Your task to perform on an android device: open sync settings in chrome Image 0: 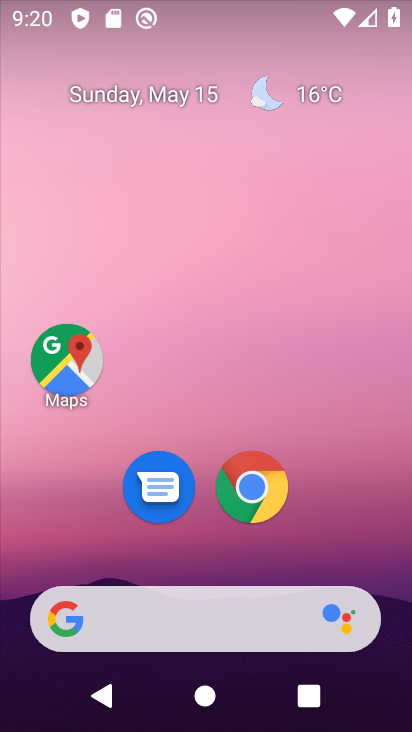
Step 0: drag from (381, 558) to (371, 206)
Your task to perform on an android device: open sync settings in chrome Image 1: 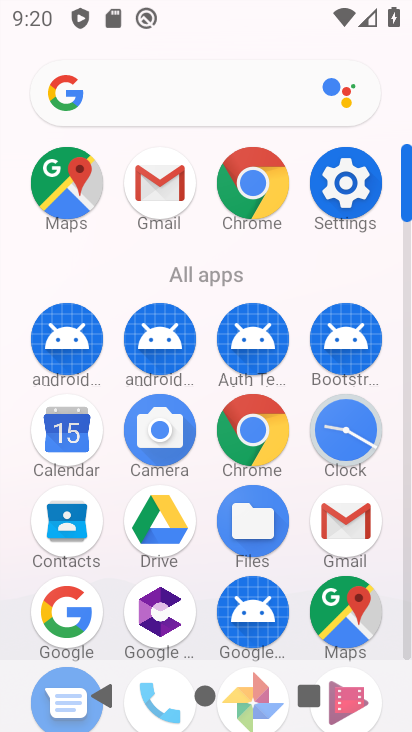
Step 1: click (241, 416)
Your task to perform on an android device: open sync settings in chrome Image 2: 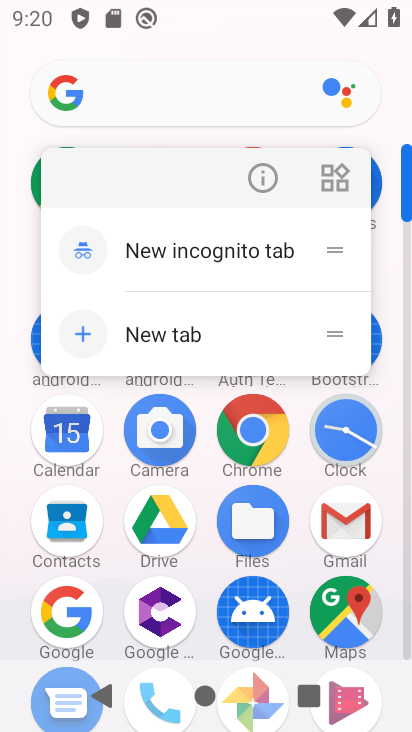
Step 2: click (241, 421)
Your task to perform on an android device: open sync settings in chrome Image 3: 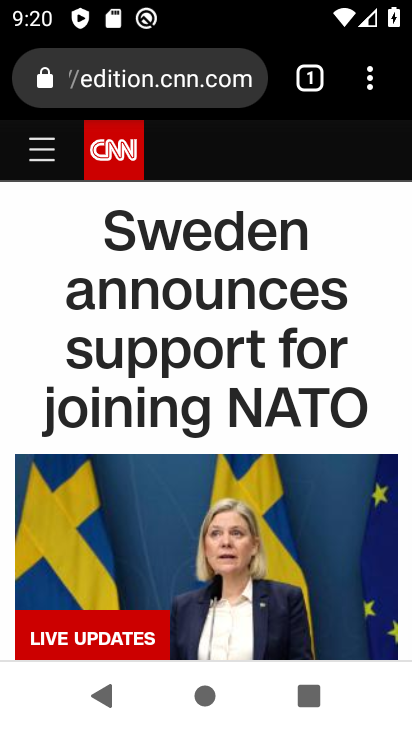
Step 3: drag from (363, 90) to (189, 554)
Your task to perform on an android device: open sync settings in chrome Image 4: 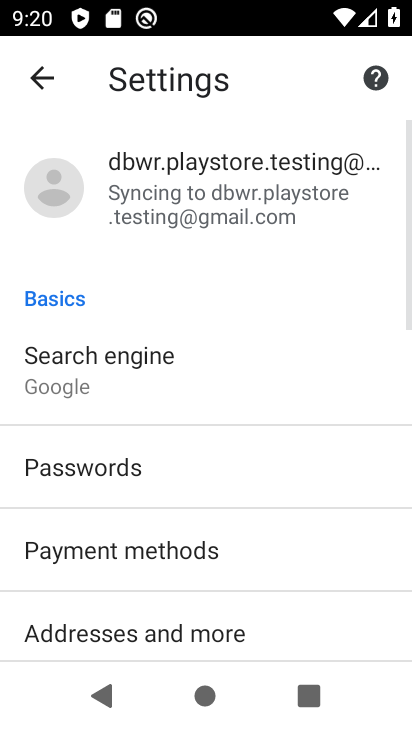
Step 4: drag from (297, 638) to (309, 348)
Your task to perform on an android device: open sync settings in chrome Image 5: 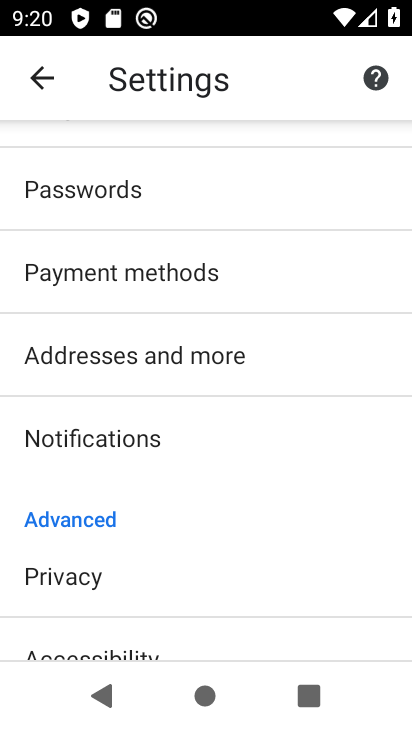
Step 5: drag from (278, 550) to (283, 249)
Your task to perform on an android device: open sync settings in chrome Image 6: 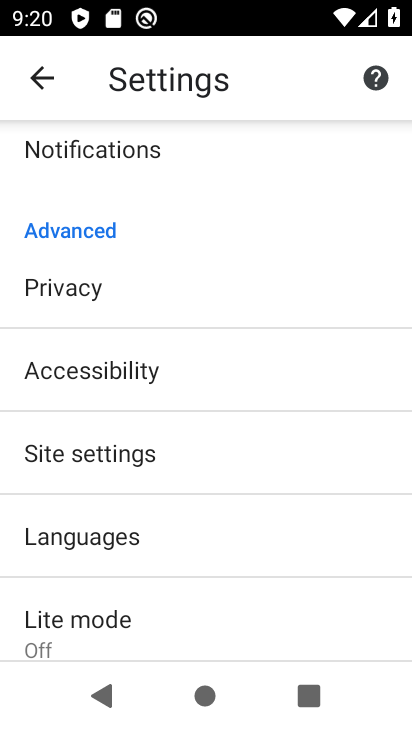
Step 6: click (255, 462)
Your task to perform on an android device: open sync settings in chrome Image 7: 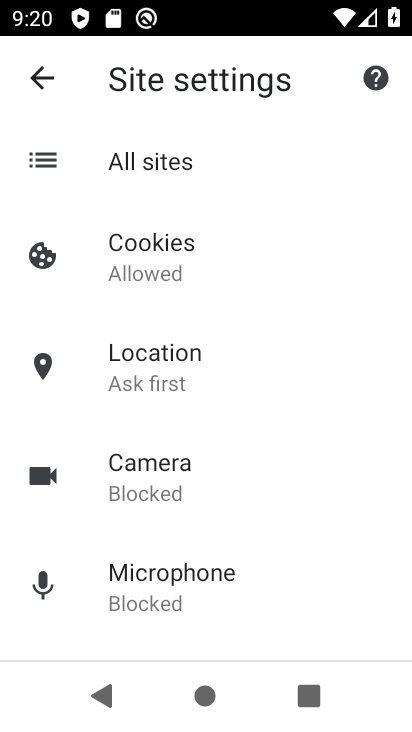
Step 7: drag from (245, 603) to (245, 267)
Your task to perform on an android device: open sync settings in chrome Image 8: 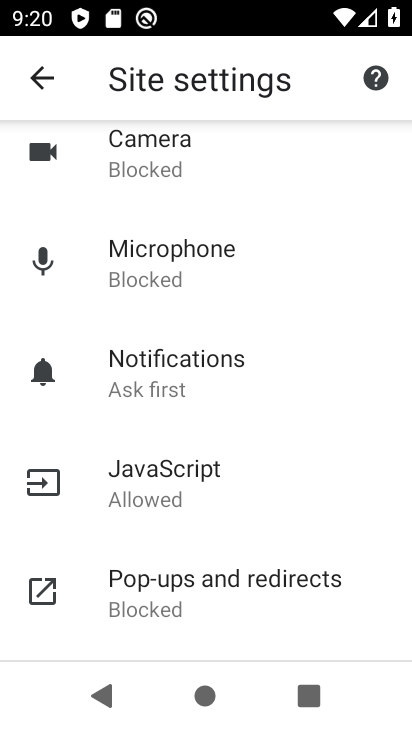
Step 8: drag from (275, 503) to (289, 179)
Your task to perform on an android device: open sync settings in chrome Image 9: 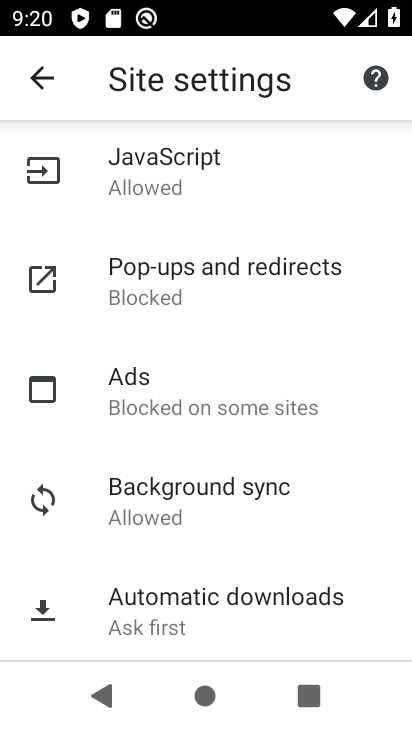
Step 9: click (276, 489)
Your task to perform on an android device: open sync settings in chrome Image 10: 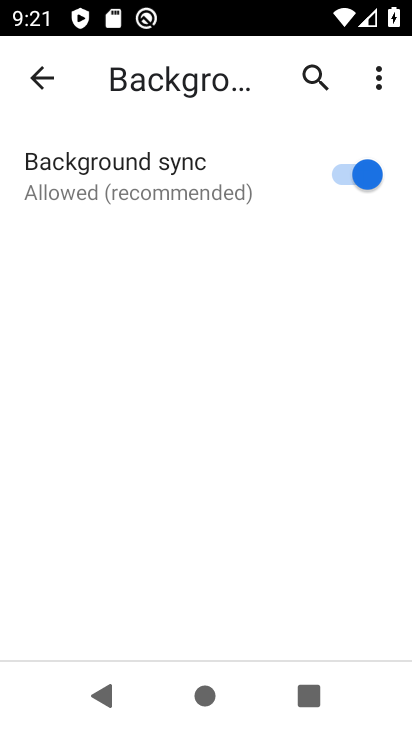
Step 10: task complete